Your task to perform on an android device: Open eBay Image 0: 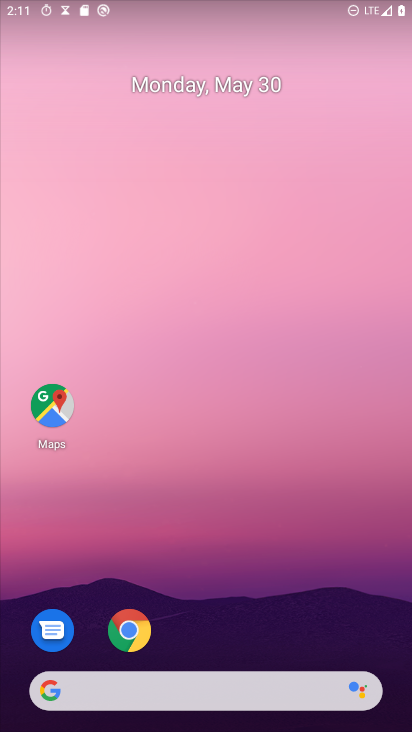
Step 0: drag from (222, 714) to (190, 247)
Your task to perform on an android device: Open eBay Image 1: 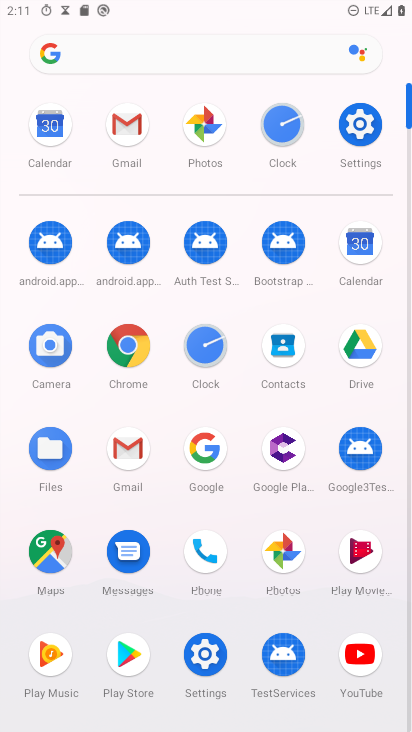
Step 1: click (152, 345)
Your task to perform on an android device: Open eBay Image 2: 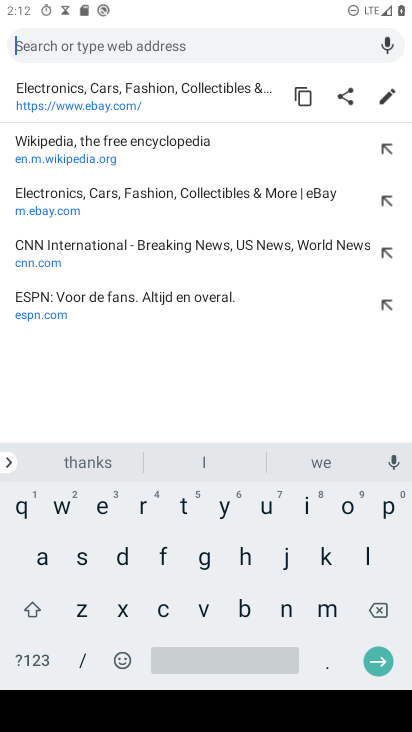
Step 2: click (96, 500)
Your task to perform on an android device: Open eBay Image 3: 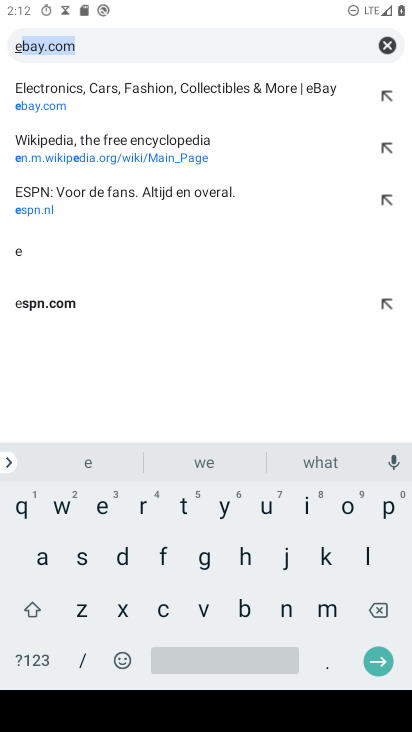
Step 3: click (90, 51)
Your task to perform on an android device: Open eBay Image 4: 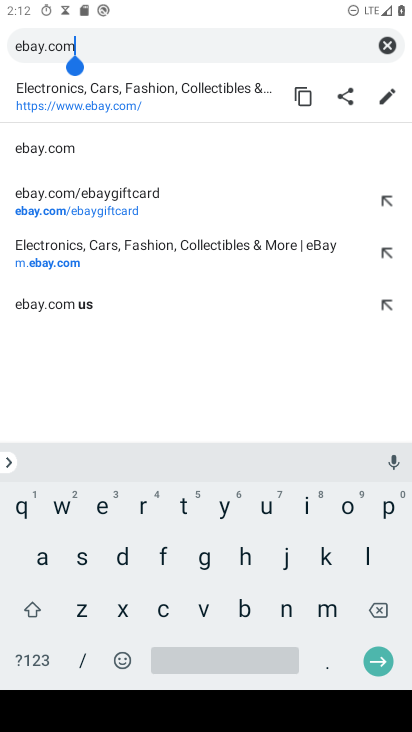
Step 4: click (382, 661)
Your task to perform on an android device: Open eBay Image 5: 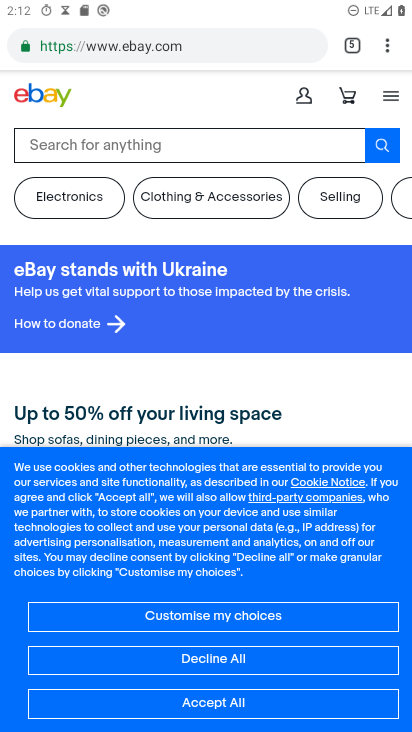
Step 5: task complete